Your task to perform on an android device: Go to sound settings Image 0: 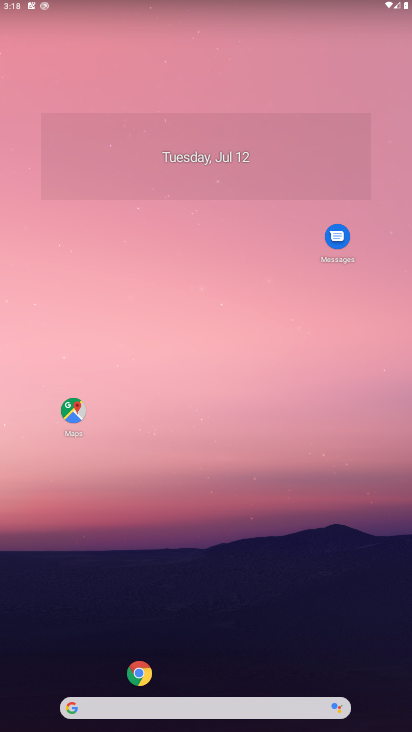
Step 0: drag from (43, 690) to (283, 80)
Your task to perform on an android device: Go to sound settings Image 1: 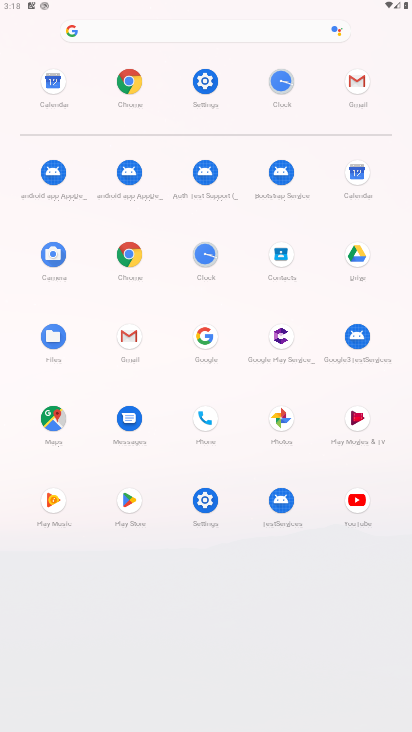
Step 1: click (206, 509)
Your task to perform on an android device: Go to sound settings Image 2: 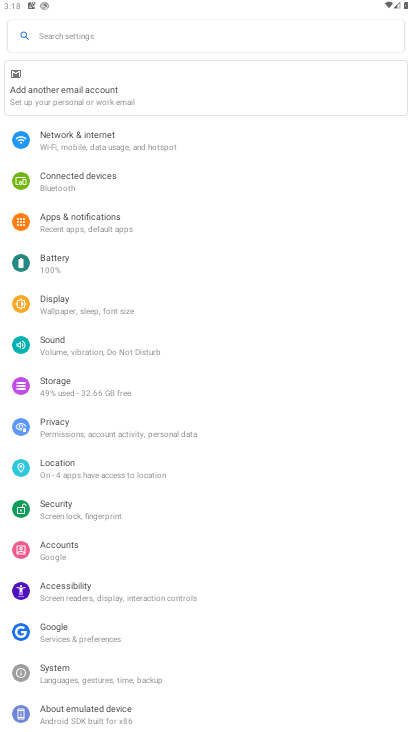
Step 2: click (88, 347)
Your task to perform on an android device: Go to sound settings Image 3: 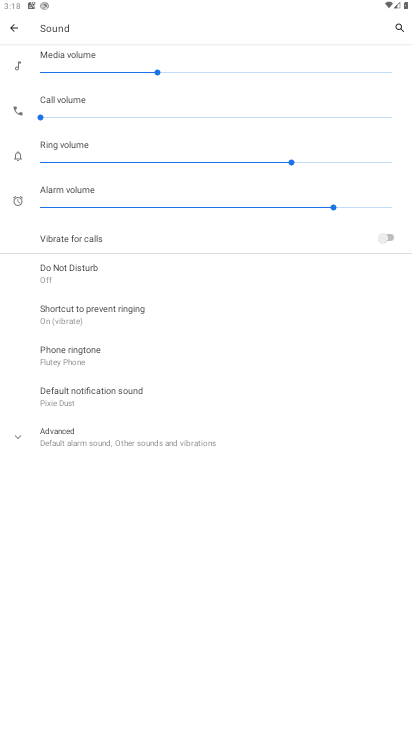
Step 3: task complete